Your task to perform on an android device: Open the calendar and show me this week's events Image 0: 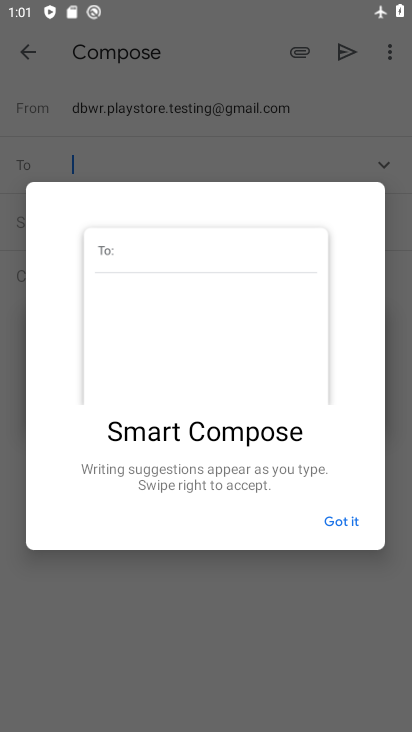
Step 0: press home button
Your task to perform on an android device: Open the calendar and show me this week's events Image 1: 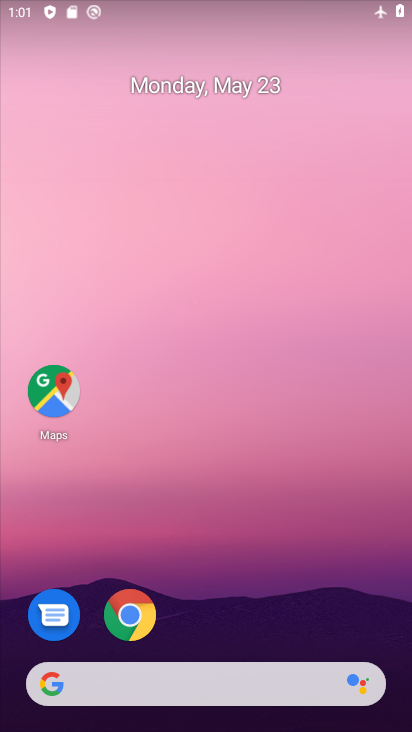
Step 1: drag from (201, 662) to (408, 27)
Your task to perform on an android device: Open the calendar and show me this week's events Image 2: 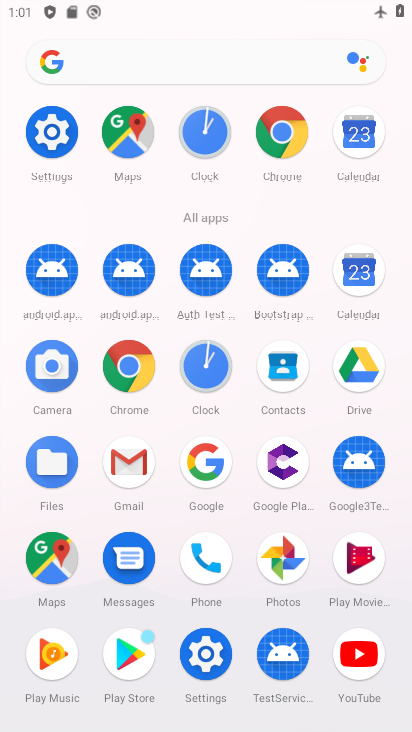
Step 2: click (353, 274)
Your task to perform on an android device: Open the calendar and show me this week's events Image 3: 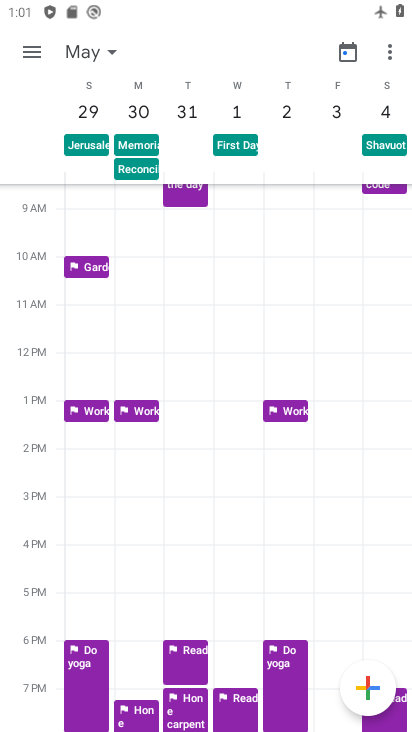
Step 3: task complete